Your task to perform on an android device: all mails in gmail Image 0: 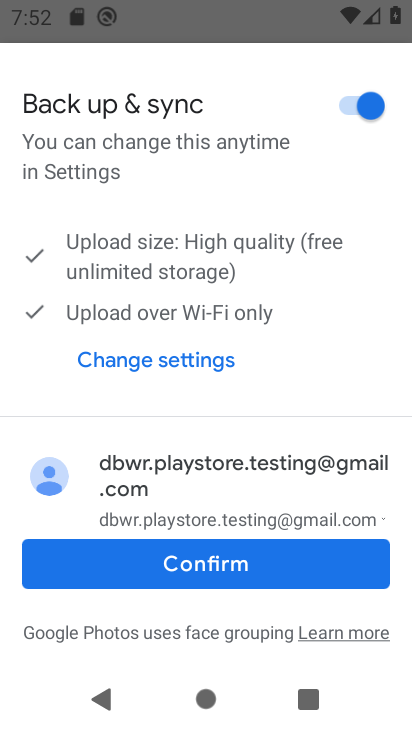
Step 0: press back button
Your task to perform on an android device: all mails in gmail Image 1: 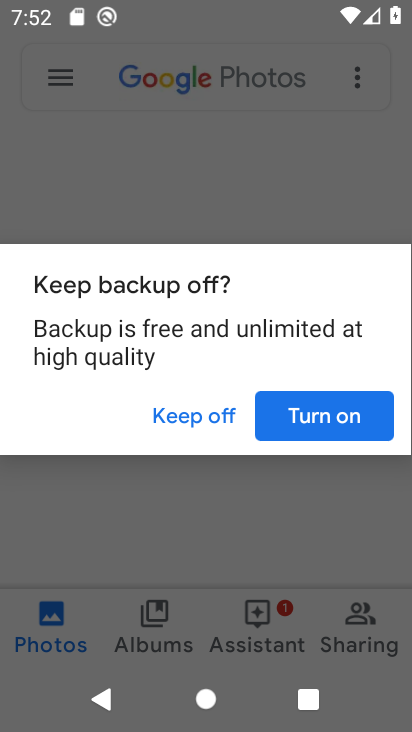
Step 1: press back button
Your task to perform on an android device: all mails in gmail Image 2: 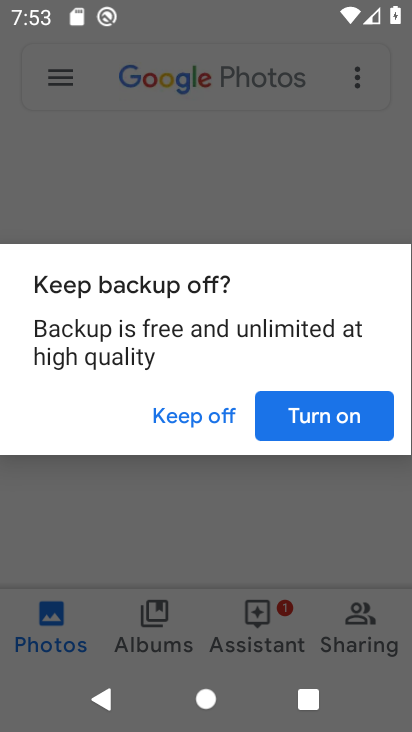
Step 2: press back button
Your task to perform on an android device: all mails in gmail Image 3: 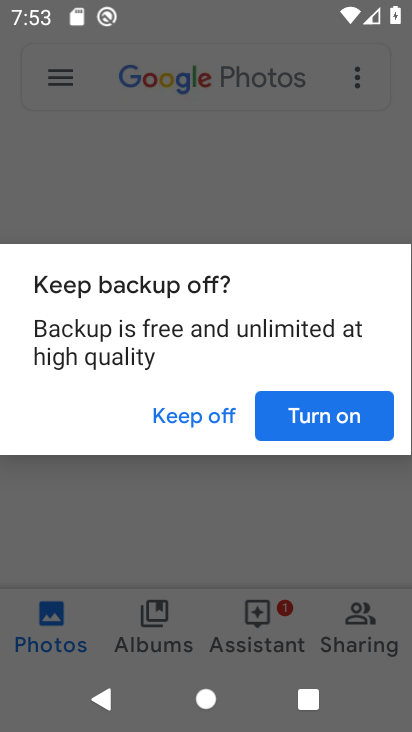
Step 3: press back button
Your task to perform on an android device: all mails in gmail Image 4: 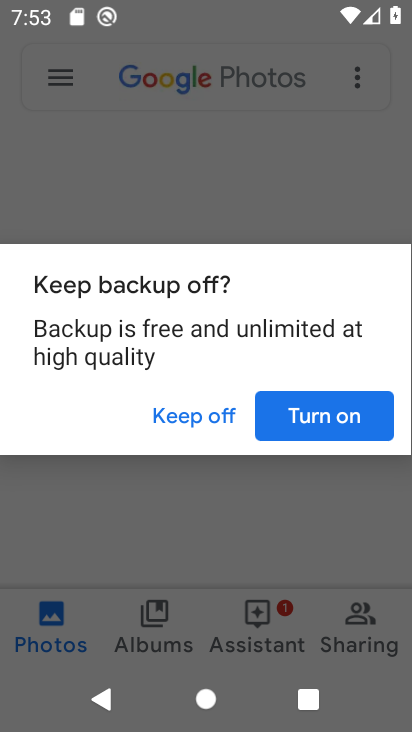
Step 4: press back button
Your task to perform on an android device: all mails in gmail Image 5: 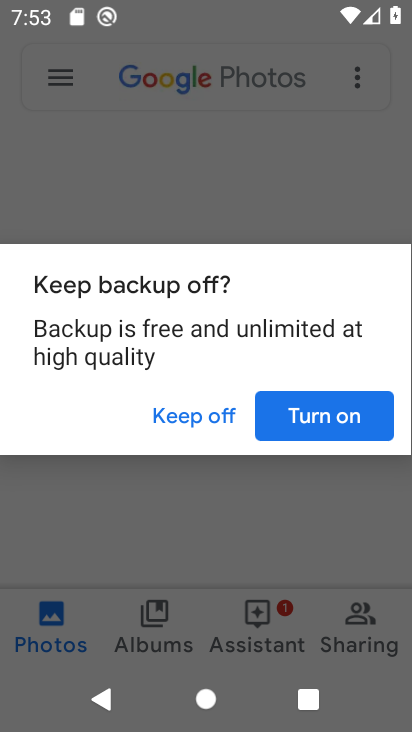
Step 5: click (172, 419)
Your task to perform on an android device: all mails in gmail Image 6: 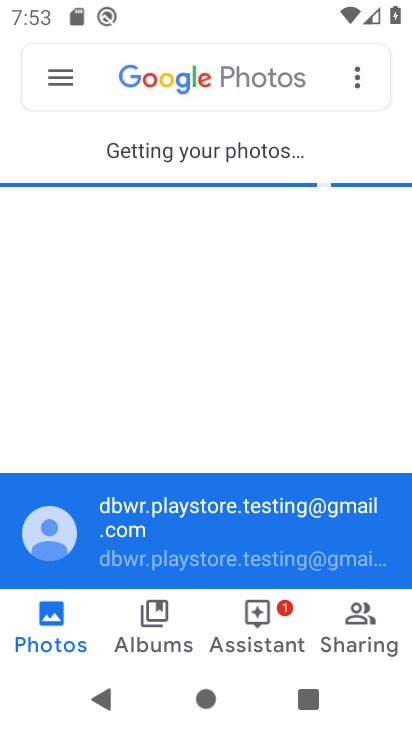
Step 6: press back button
Your task to perform on an android device: all mails in gmail Image 7: 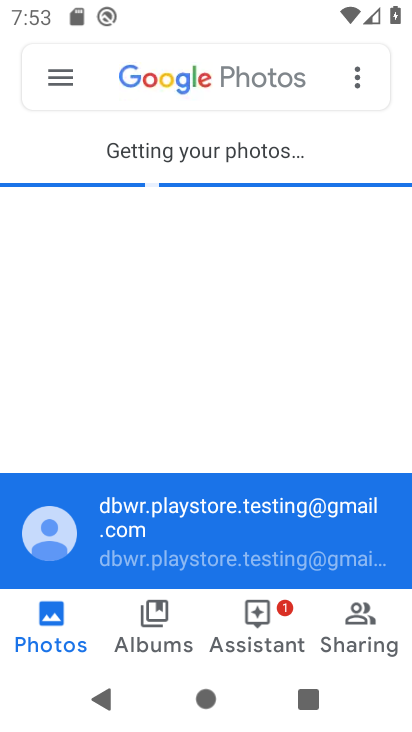
Step 7: press back button
Your task to perform on an android device: all mails in gmail Image 8: 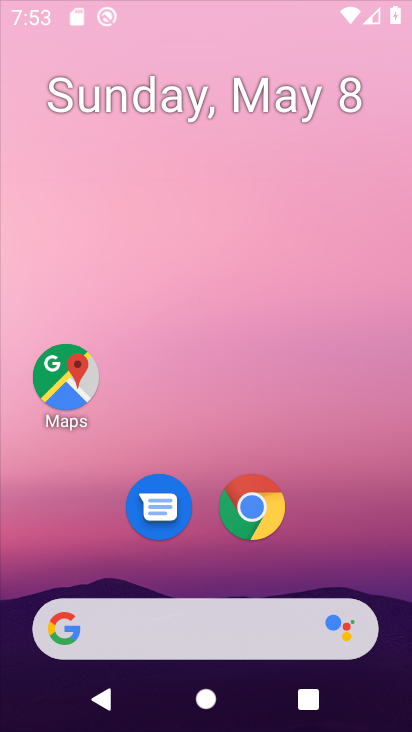
Step 8: press back button
Your task to perform on an android device: all mails in gmail Image 9: 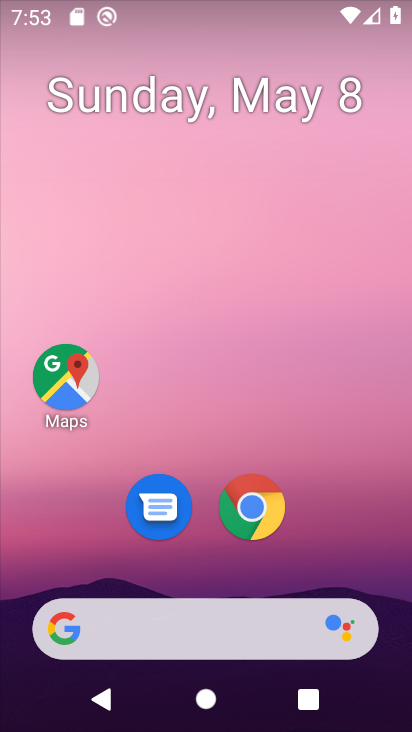
Step 9: press back button
Your task to perform on an android device: all mails in gmail Image 10: 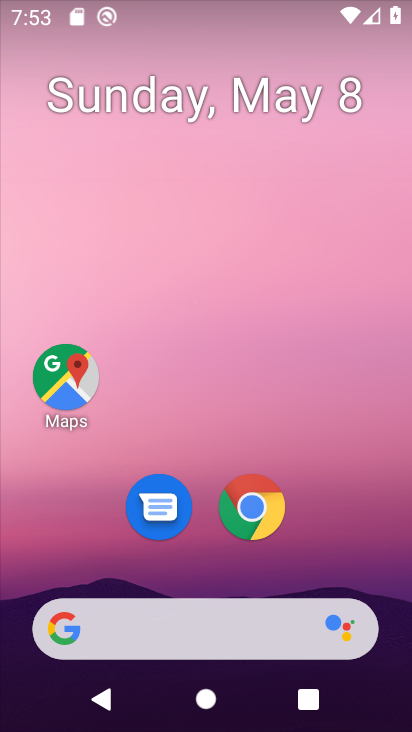
Step 10: drag from (196, 533) to (226, 173)
Your task to perform on an android device: all mails in gmail Image 11: 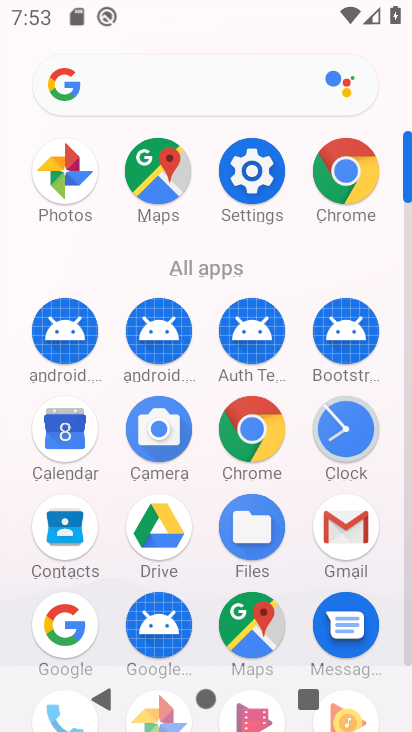
Step 11: click (365, 544)
Your task to perform on an android device: all mails in gmail Image 12: 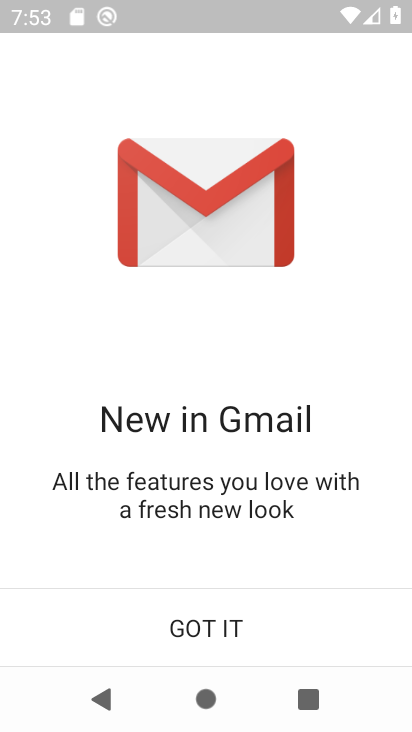
Step 12: click (202, 625)
Your task to perform on an android device: all mails in gmail Image 13: 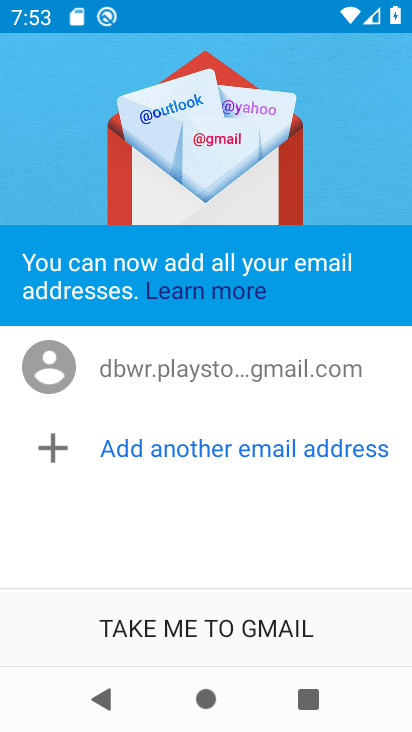
Step 13: click (209, 623)
Your task to perform on an android device: all mails in gmail Image 14: 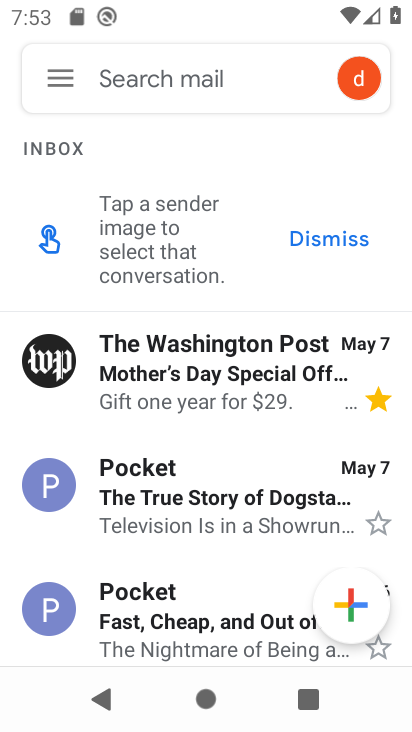
Step 14: click (64, 70)
Your task to perform on an android device: all mails in gmail Image 15: 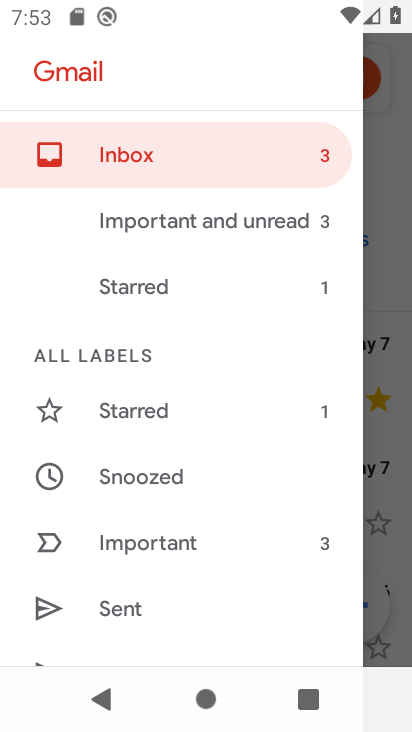
Step 15: drag from (172, 570) to (224, 235)
Your task to perform on an android device: all mails in gmail Image 16: 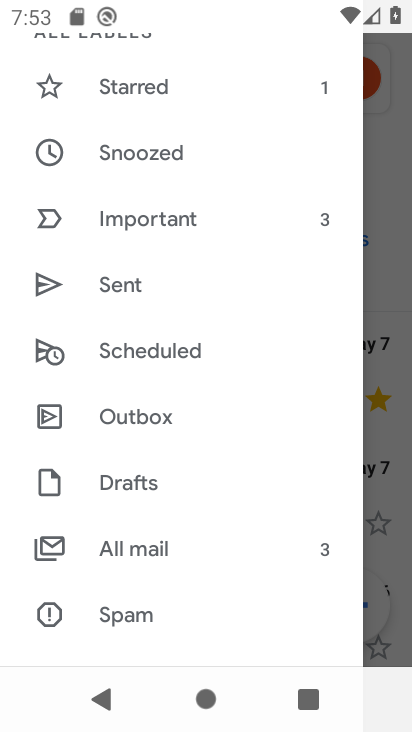
Step 16: click (145, 564)
Your task to perform on an android device: all mails in gmail Image 17: 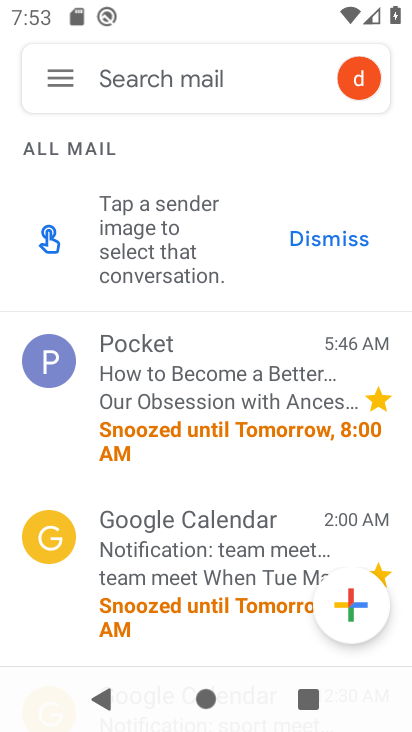
Step 17: task complete